Your task to perform on an android device: Show me popular videos on Youtube Image 0: 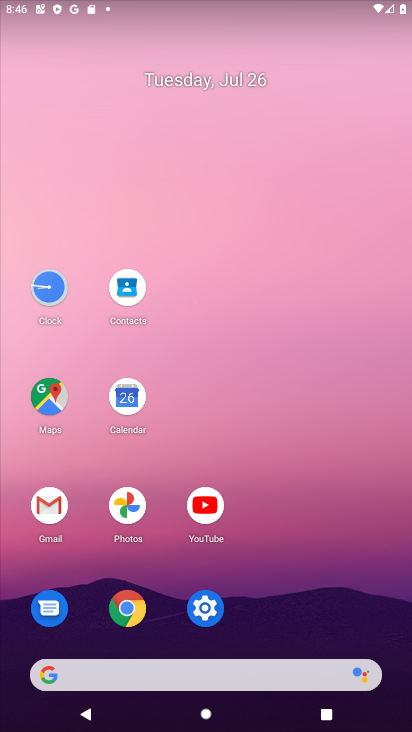
Step 0: click (202, 508)
Your task to perform on an android device: Show me popular videos on Youtube Image 1: 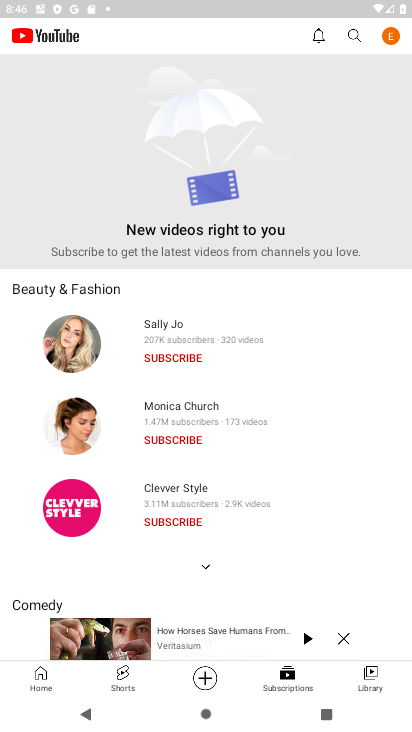
Step 1: click (343, 636)
Your task to perform on an android device: Show me popular videos on Youtube Image 2: 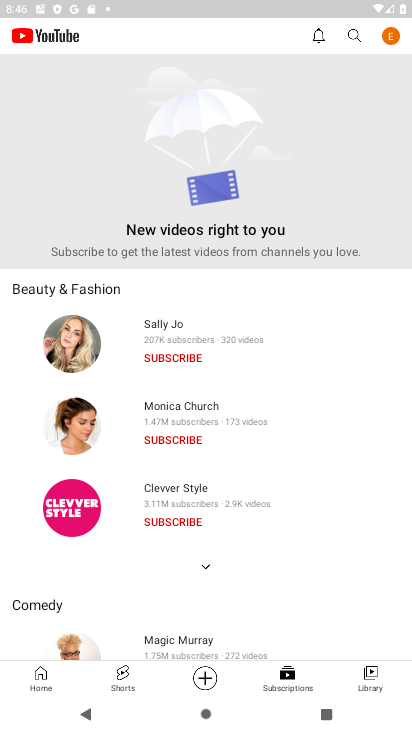
Step 2: click (369, 682)
Your task to perform on an android device: Show me popular videos on Youtube Image 3: 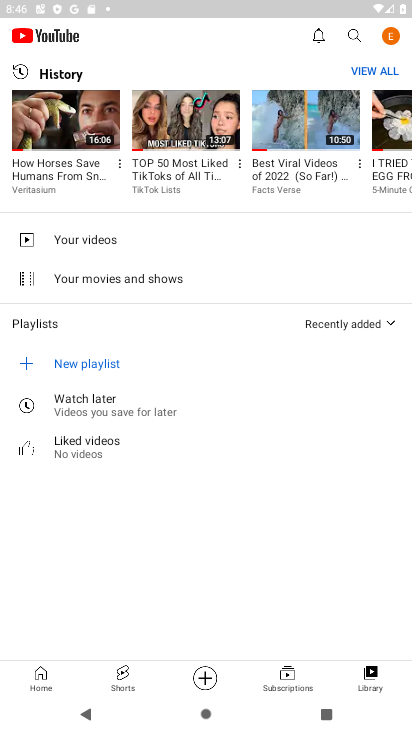
Step 3: click (128, 682)
Your task to perform on an android device: Show me popular videos on Youtube Image 4: 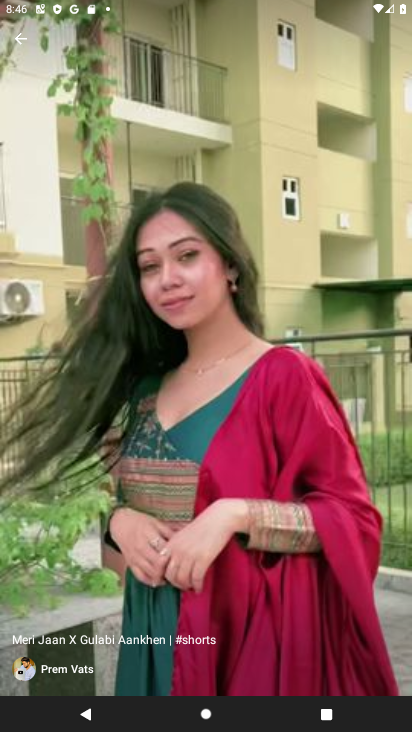
Step 4: task complete